Your task to perform on an android device: Go to wifi settings Image 0: 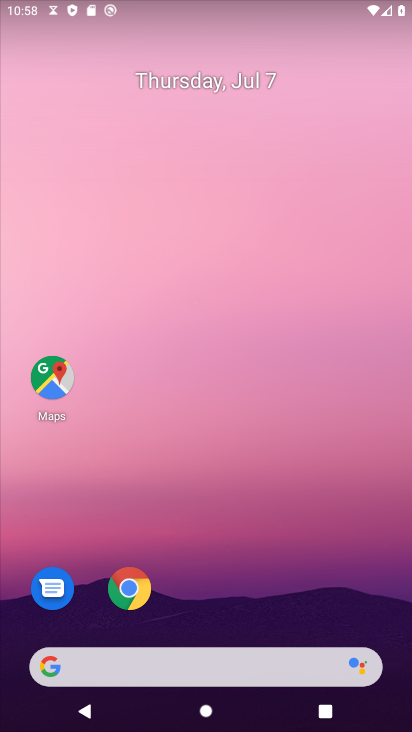
Step 0: click (408, 247)
Your task to perform on an android device: Go to wifi settings Image 1: 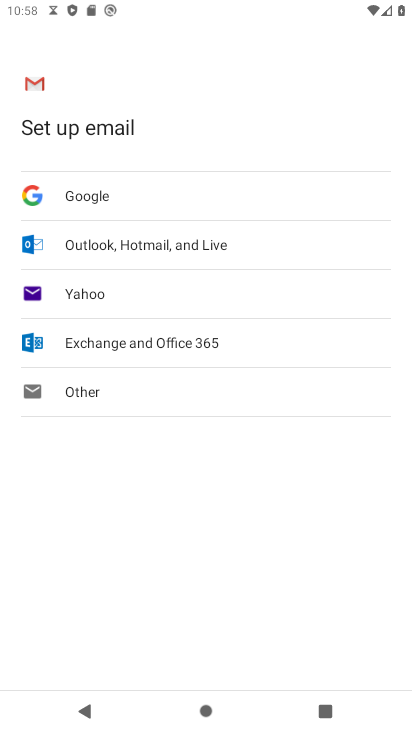
Step 1: drag from (275, 604) to (274, 303)
Your task to perform on an android device: Go to wifi settings Image 2: 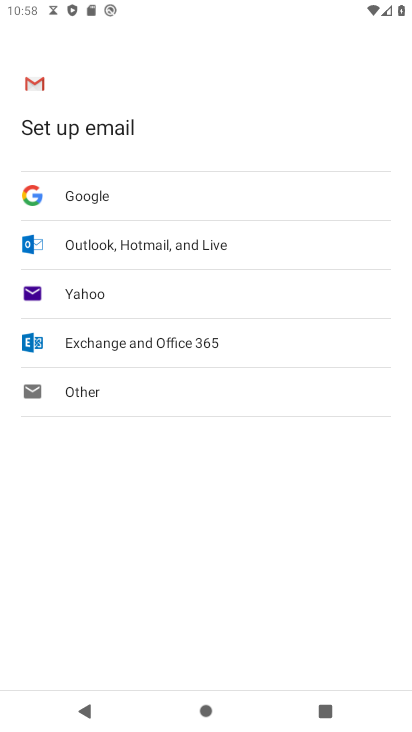
Step 2: press home button
Your task to perform on an android device: Go to wifi settings Image 3: 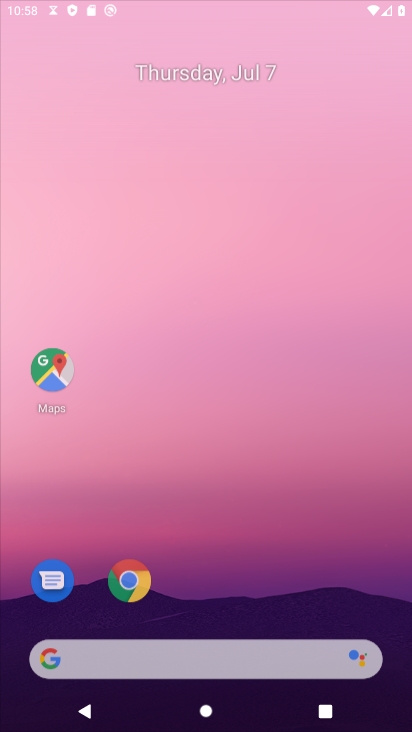
Step 3: drag from (194, 575) to (296, 51)
Your task to perform on an android device: Go to wifi settings Image 4: 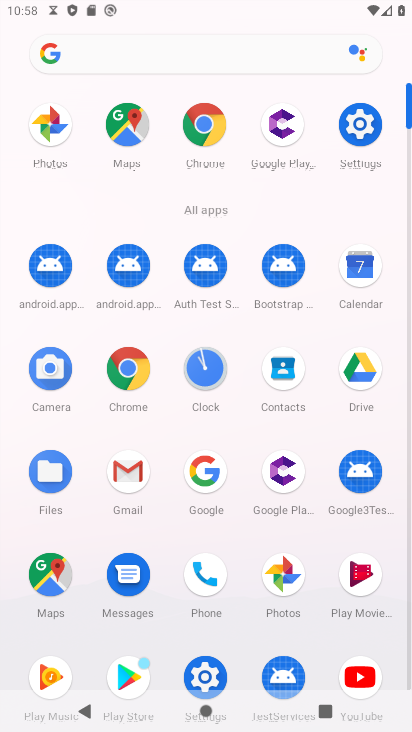
Step 4: click (363, 123)
Your task to perform on an android device: Go to wifi settings Image 5: 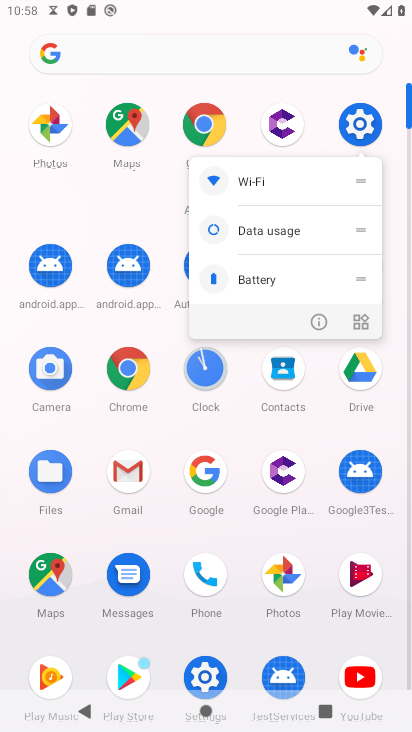
Step 5: click (267, 159)
Your task to perform on an android device: Go to wifi settings Image 6: 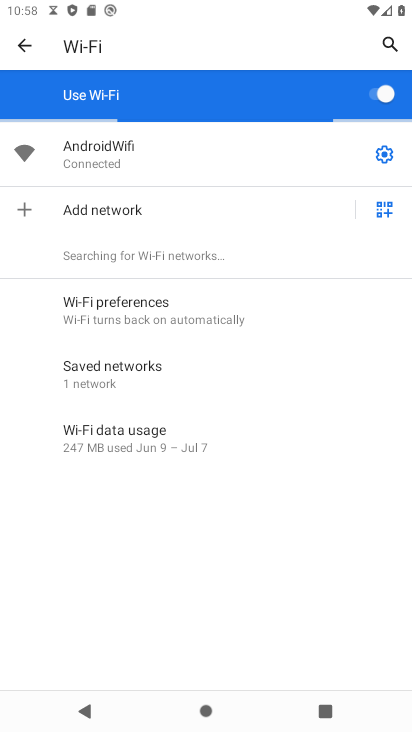
Step 6: click (382, 149)
Your task to perform on an android device: Go to wifi settings Image 7: 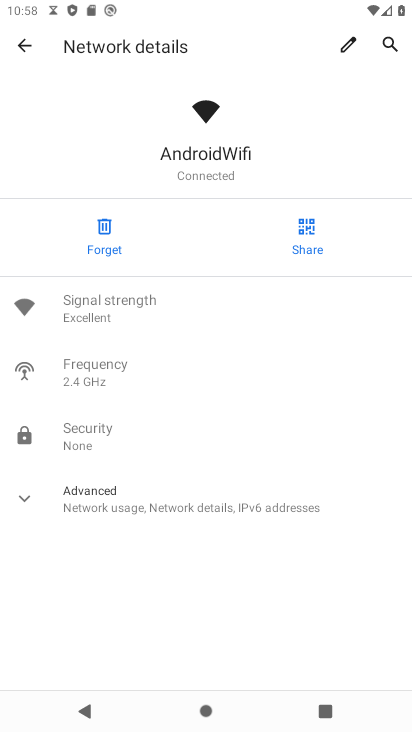
Step 7: task complete